Your task to perform on an android device: turn on airplane mode Image 0: 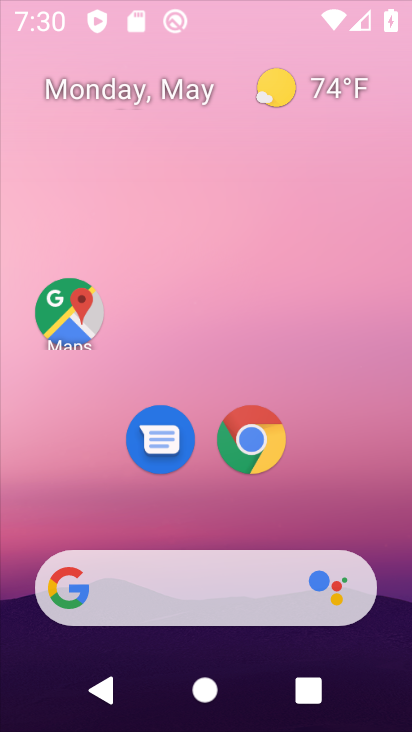
Step 0: press home button
Your task to perform on an android device: turn on airplane mode Image 1: 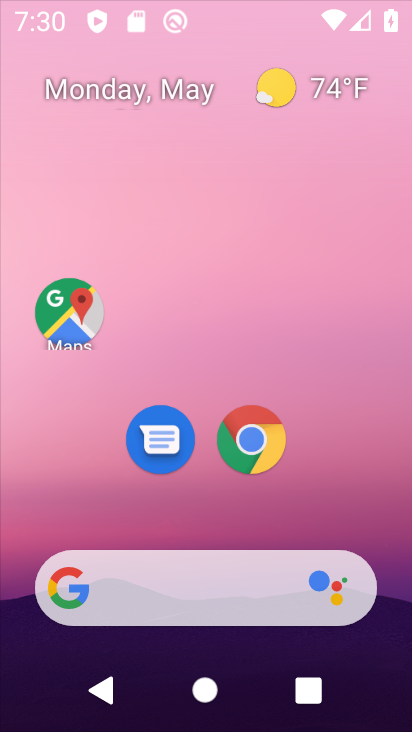
Step 1: click (332, 190)
Your task to perform on an android device: turn on airplane mode Image 2: 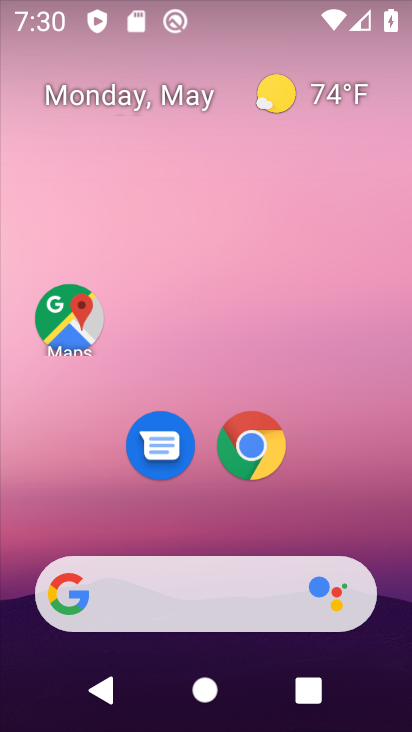
Step 2: drag from (179, 584) to (352, 66)
Your task to perform on an android device: turn on airplane mode Image 3: 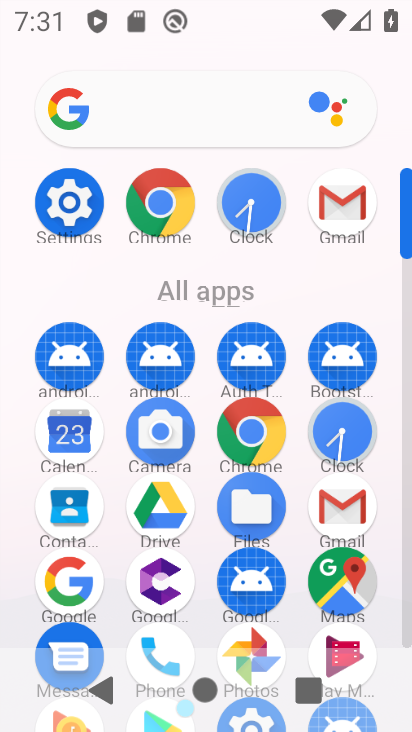
Step 3: click (73, 186)
Your task to perform on an android device: turn on airplane mode Image 4: 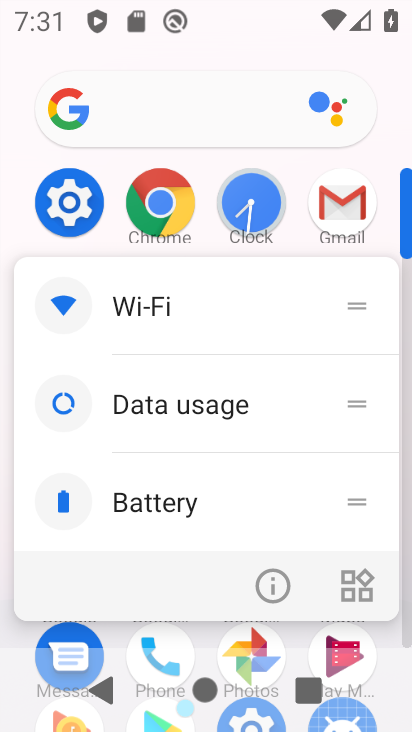
Step 4: click (80, 203)
Your task to perform on an android device: turn on airplane mode Image 5: 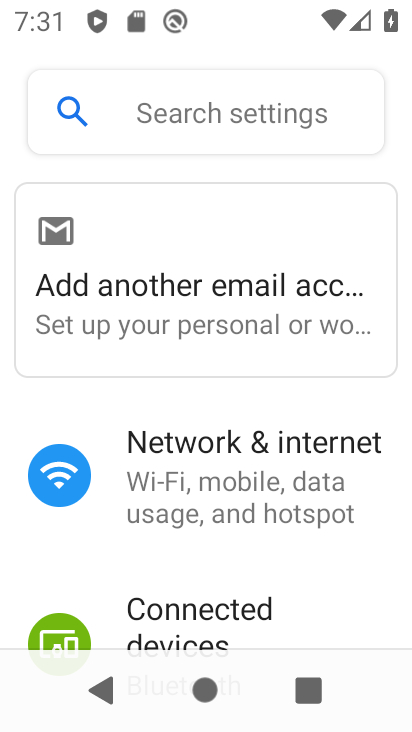
Step 5: click (242, 471)
Your task to perform on an android device: turn on airplane mode Image 6: 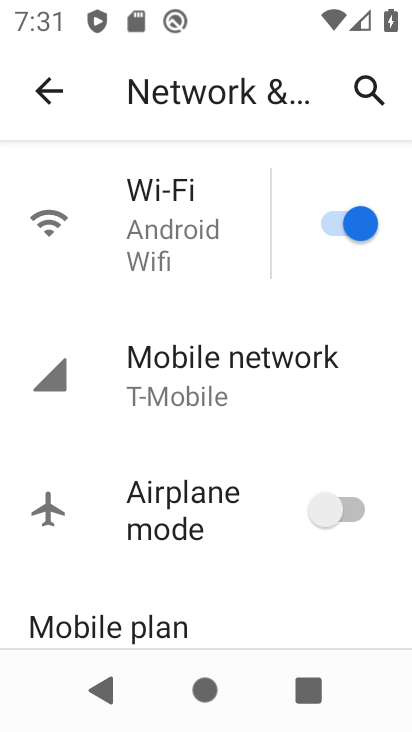
Step 6: click (354, 508)
Your task to perform on an android device: turn on airplane mode Image 7: 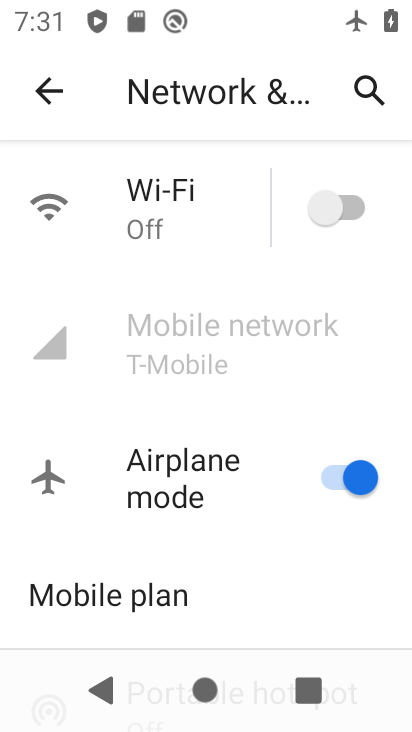
Step 7: task complete